Your task to perform on an android device: Open the calendar app, open the side menu, and click the "Day" option Image 0: 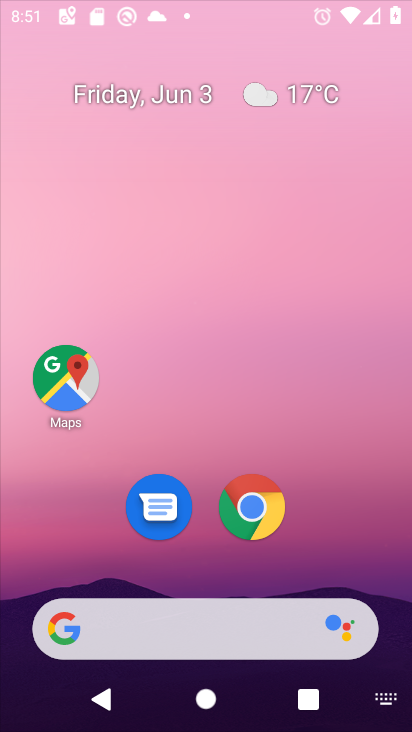
Step 0: drag from (347, 501) to (294, 84)
Your task to perform on an android device: Open the calendar app, open the side menu, and click the "Day" option Image 1: 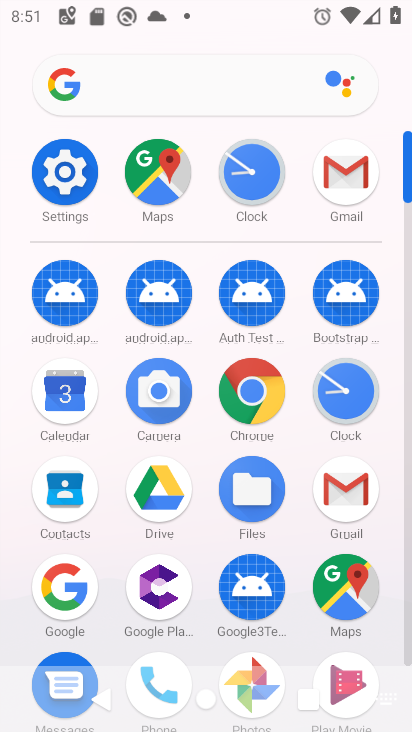
Step 1: click (68, 392)
Your task to perform on an android device: Open the calendar app, open the side menu, and click the "Day" option Image 2: 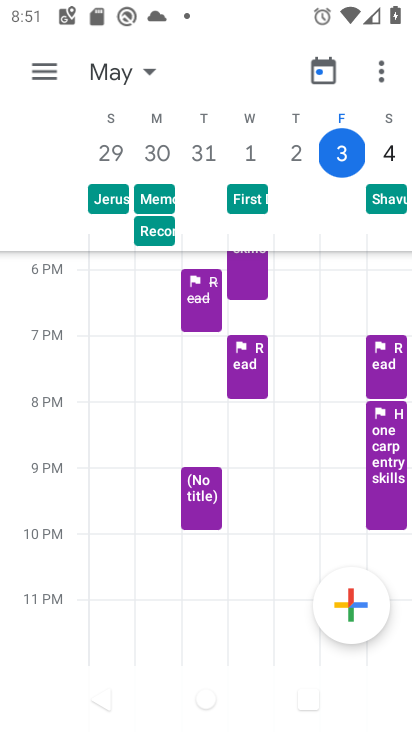
Step 2: click (51, 64)
Your task to perform on an android device: Open the calendar app, open the side menu, and click the "Day" option Image 3: 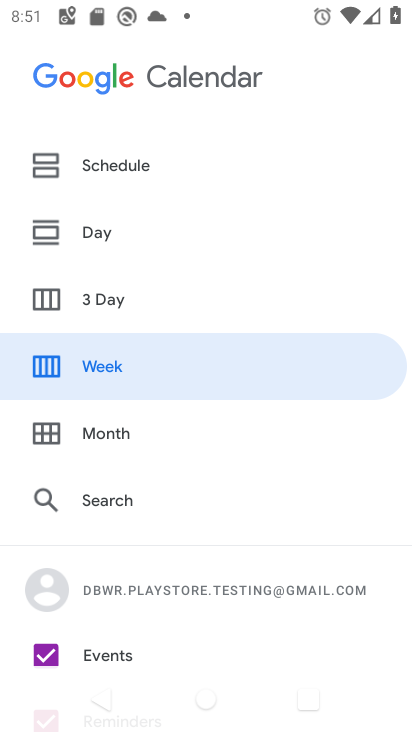
Step 3: click (114, 221)
Your task to perform on an android device: Open the calendar app, open the side menu, and click the "Day" option Image 4: 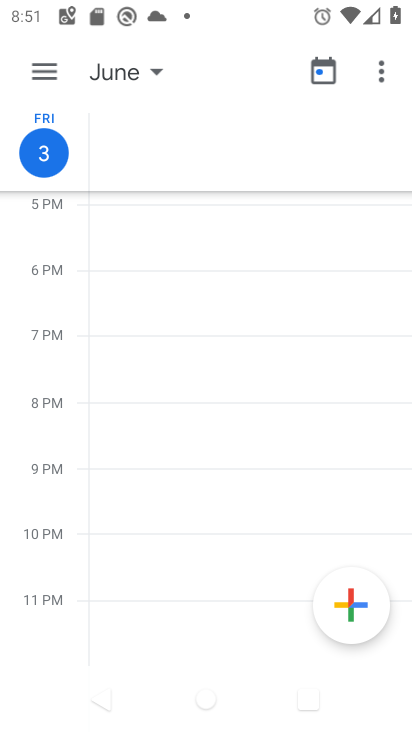
Step 4: task complete